Your task to perform on an android device: Go to Amazon Image 0: 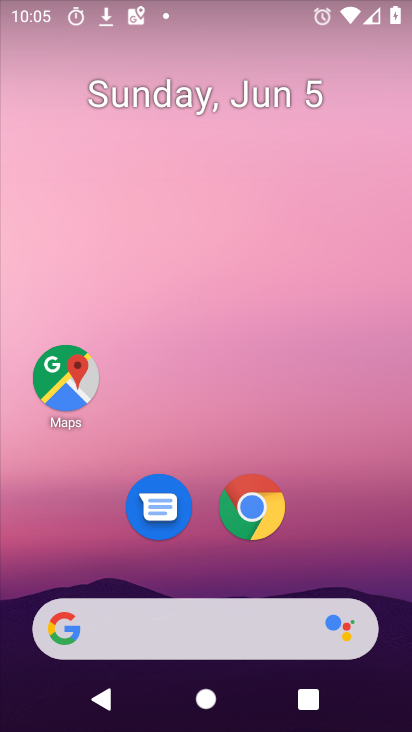
Step 0: drag from (267, 684) to (247, 228)
Your task to perform on an android device: Go to Amazon Image 1: 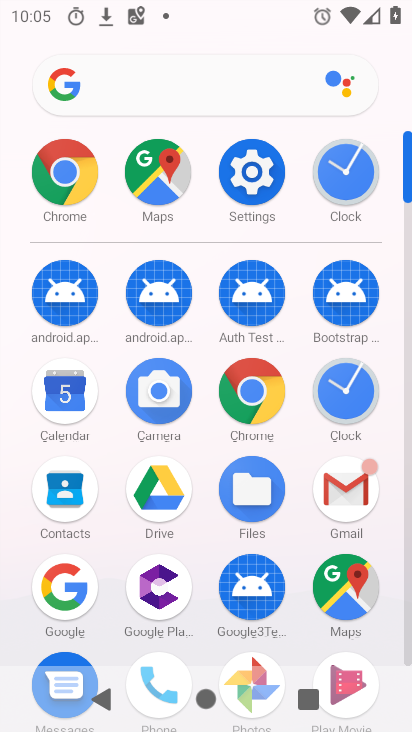
Step 1: click (82, 169)
Your task to perform on an android device: Go to Amazon Image 2: 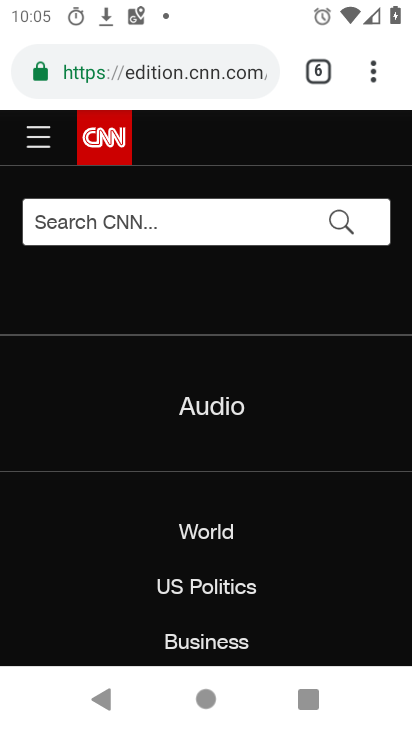
Step 2: click (360, 90)
Your task to perform on an android device: Go to Amazon Image 3: 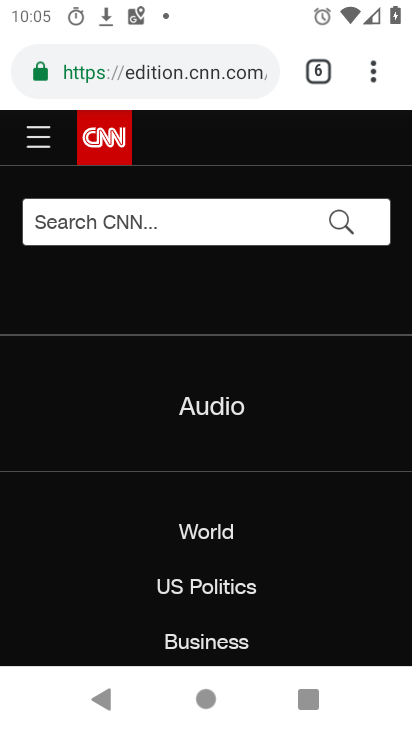
Step 3: click (368, 81)
Your task to perform on an android device: Go to Amazon Image 4: 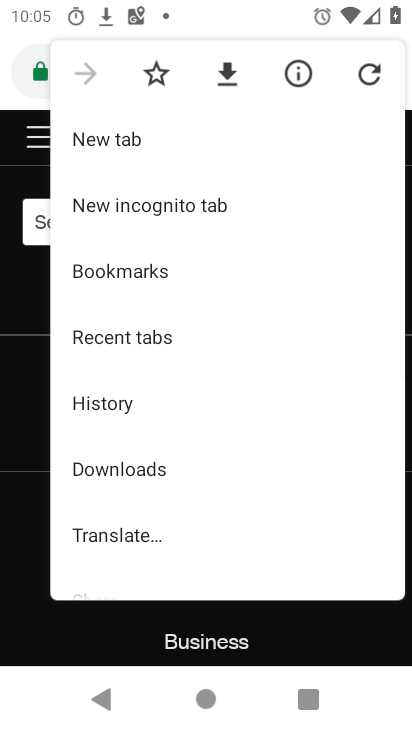
Step 4: drag from (160, 450) to (181, 198)
Your task to perform on an android device: Go to Amazon Image 5: 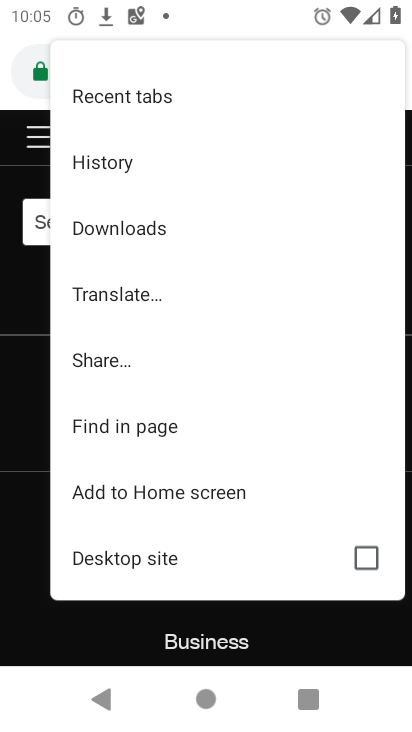
Step 5: drag from (189, 215) to (240, 511)
Your task to perform on an android device: Go to Amazon Image 6: 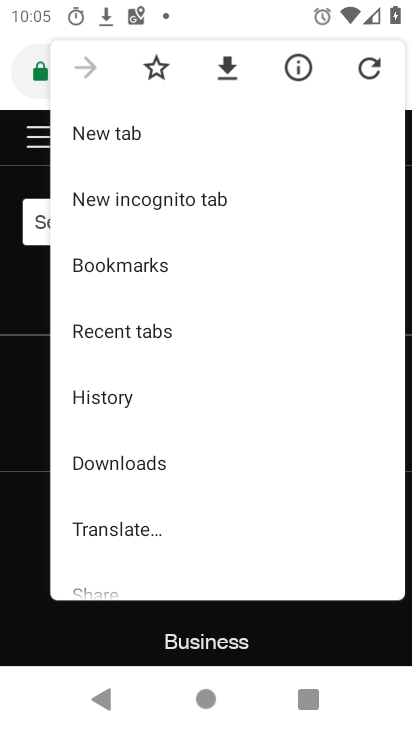
Step 6: click (158, 144)
Your task to perform on an android device: Go to Amazon Image 7: 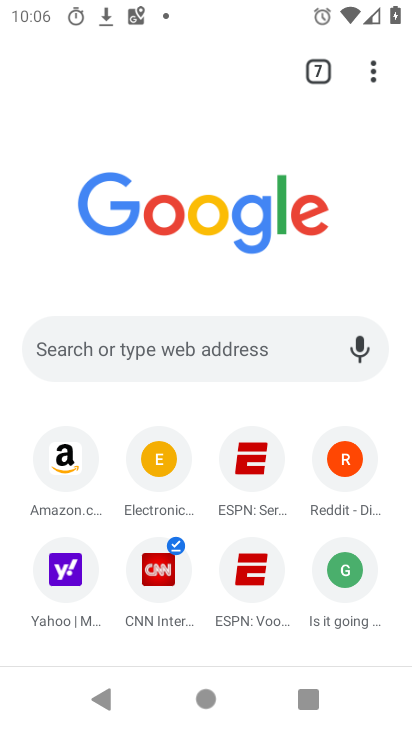
Step 7: click (49, 454)
Your task to perform on an android device: Go to Amazon Image 8: 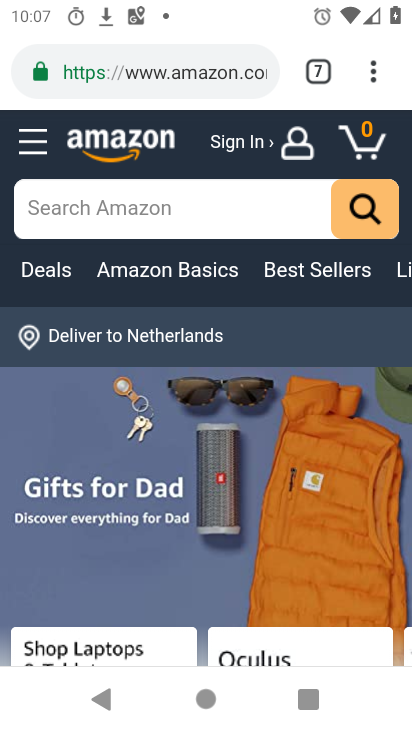
Step 8: task complete